Your task to perform on an android device: change text size in settings app Image 0: 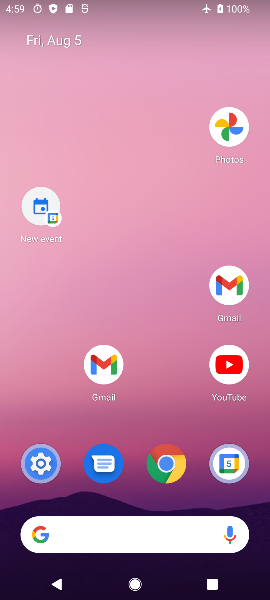
Step 0: drag from (143, 339) to (141, 68)
Your task to perform on an android device: change text size in settings app Image 1: 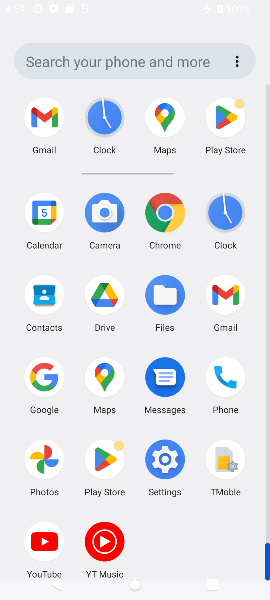
Step 1: click (147, 77)
Your task to perform on an android device: change text size in settings app Image 2: 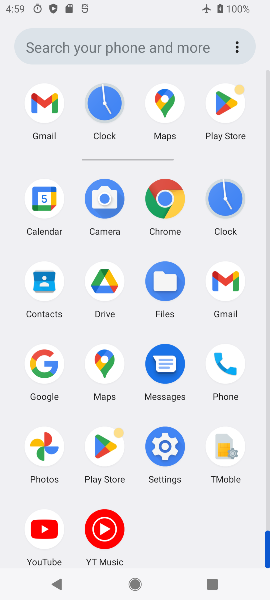
Step 2: drag from (168, 402) to (142, 79)
Your task to perform on an android device: change text size in settings app Image 3: 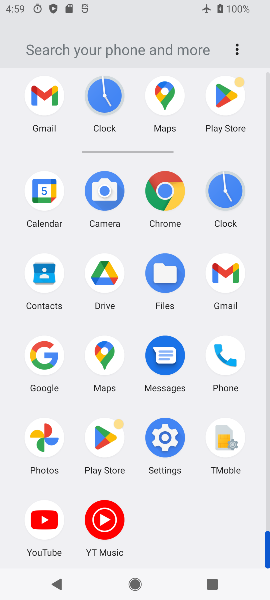
Step 3: click (164, 450)
Your task to perform on an android device: change text size in settings app Image 4: 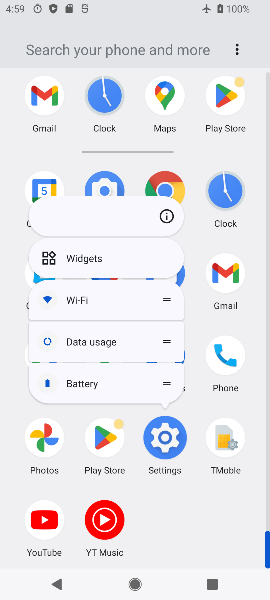
Step 4: click (164, 450)
Your task to perform on an android device: change text size in settings app Image 5: 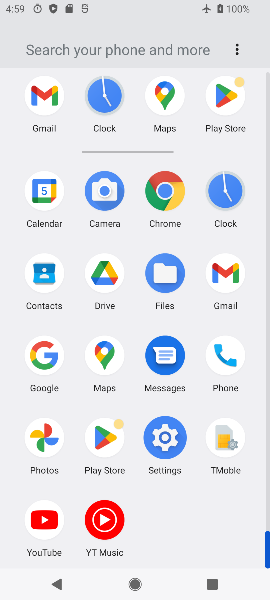
Step 5: click (158, 435)
Your task to perform on an android device: change text size in settings app Image 6: 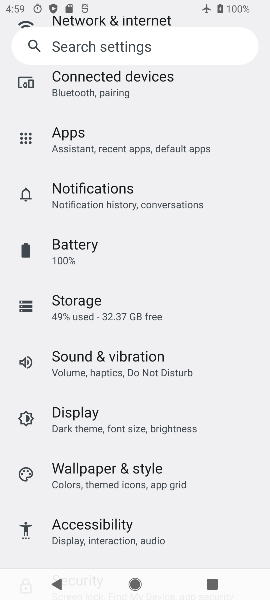
Step 6: click (158, 435)
Your task to perform on an android device: change text size in settings app Image 7: 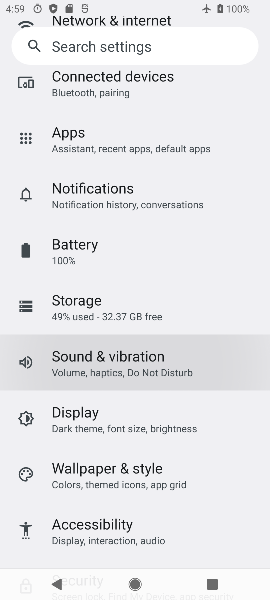
Step 7: click (158, 435)
Your task to perform on an android device: change text size in settings app Image 8: 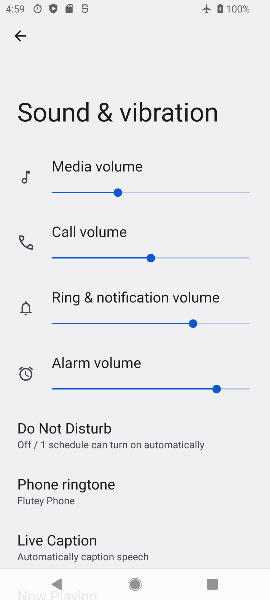
Step 8: click (28, 33)
Your task to perform on an android device: change text size in settings app Image 9: 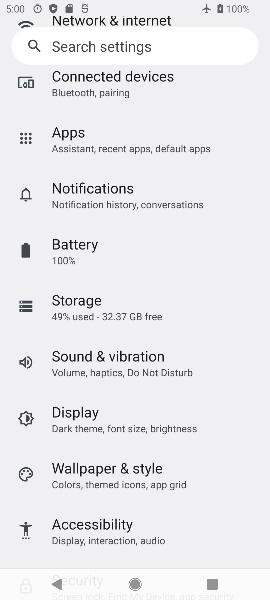
Step 9: drag from (101, 275) to (110, 399)
Your task to perform on an android device: change text size in settings app Image 10: 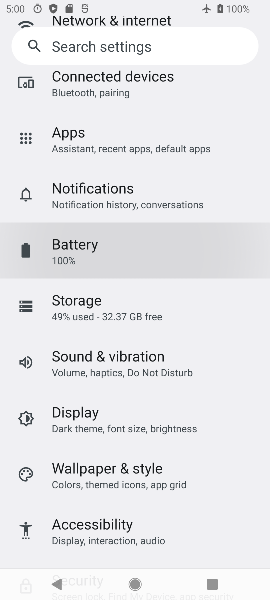
Step 10: drag from (99, 259) to (119, 521)
Your task to perform on an android device: change text size in settings app Image 11: 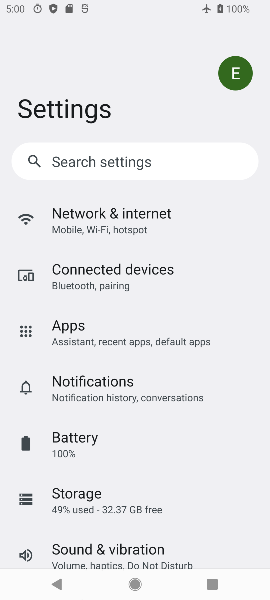
Step 11: drag from (96, 455) to (59, 158)
Your task to perform on an android device: change text size in settings app Image 12: 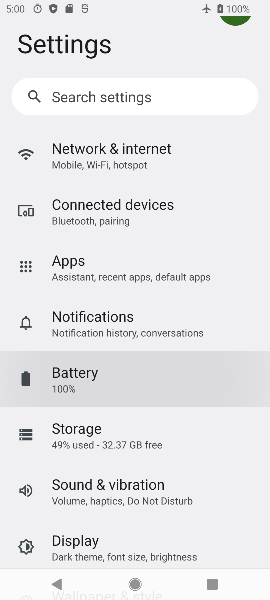
Step 12: click (57, 256)
Your task to perform on an android device: change text size in settings app Image 13: 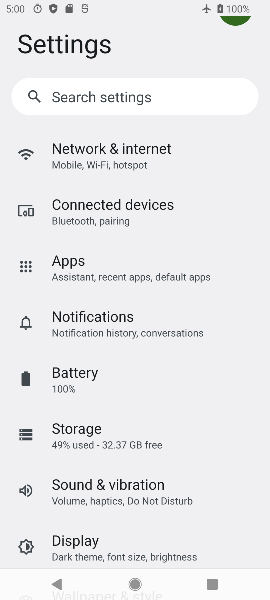
Step 13: click (80, 540)
Your task to perform on an android device: change text size in settings app Image 14: 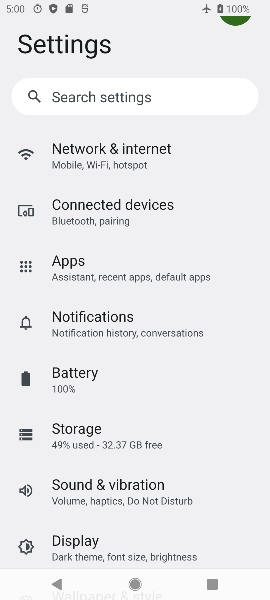
Step 14: click (80, 540)
Your task to perform on an android device: change text size in settings app Image 15: 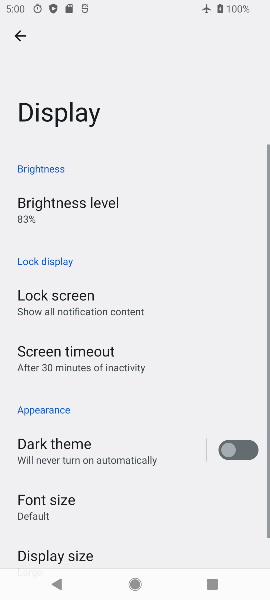
Step 15: click (80, 540)
Your task to perform on an android device: change text size in settings app Image 16: 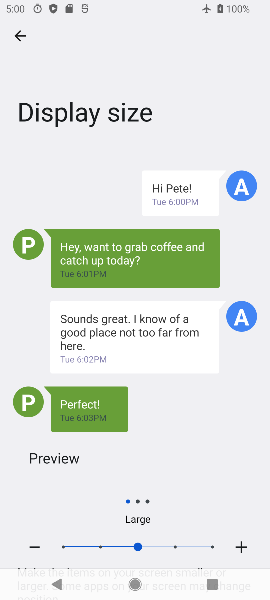
Step 16: click (172, 551)
Your task to perform on an android device: change text size in settings app Image 17: 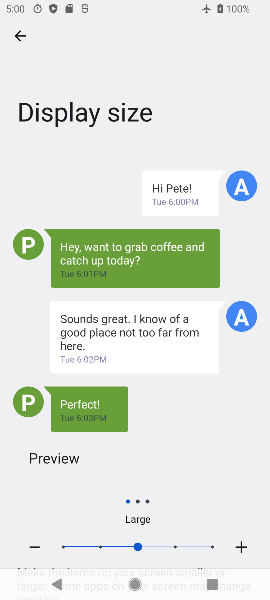
Step 17: click (174, 552)
Your task to perform on an android device: change text size in settings app Image 18: 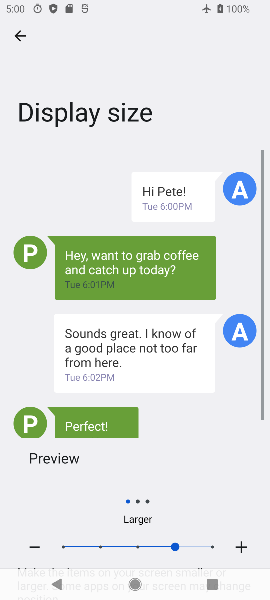
Step 18: click (208, 543)
Your task to perform on an android device: change text size in settings app Image 19: 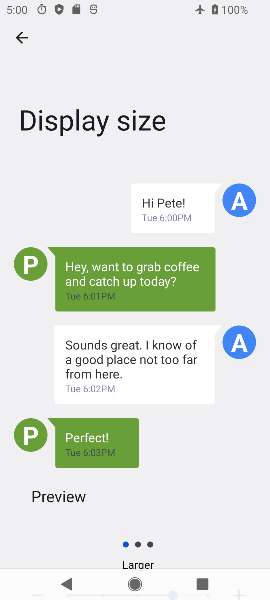
Step 19: task complete